Your task to perform on an android device: Open Maps and search for coffee Image 0: 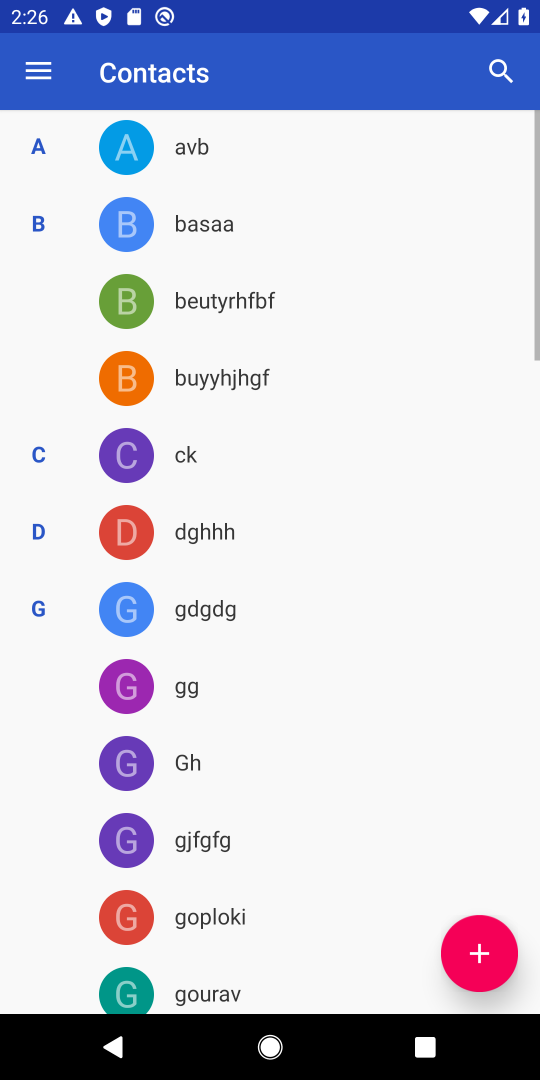
Step 0: press back button
Your task to perform on an android device: Open Maps and search for coffee Image 1: 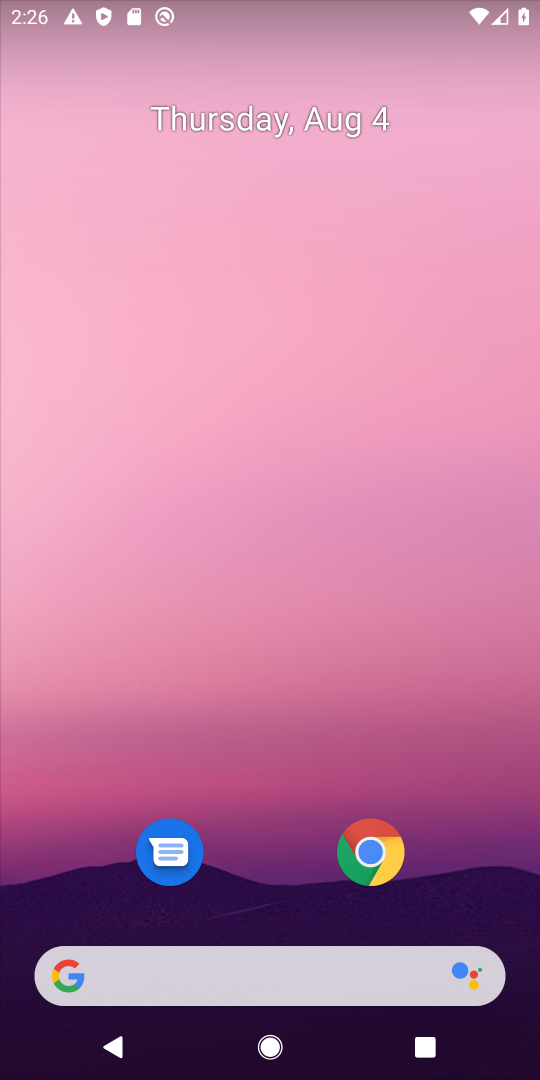
Step 1: drag from (278, 912) to (320, 146)
Your task to perform on an android device: Open Maps and search for coffee Image 2: 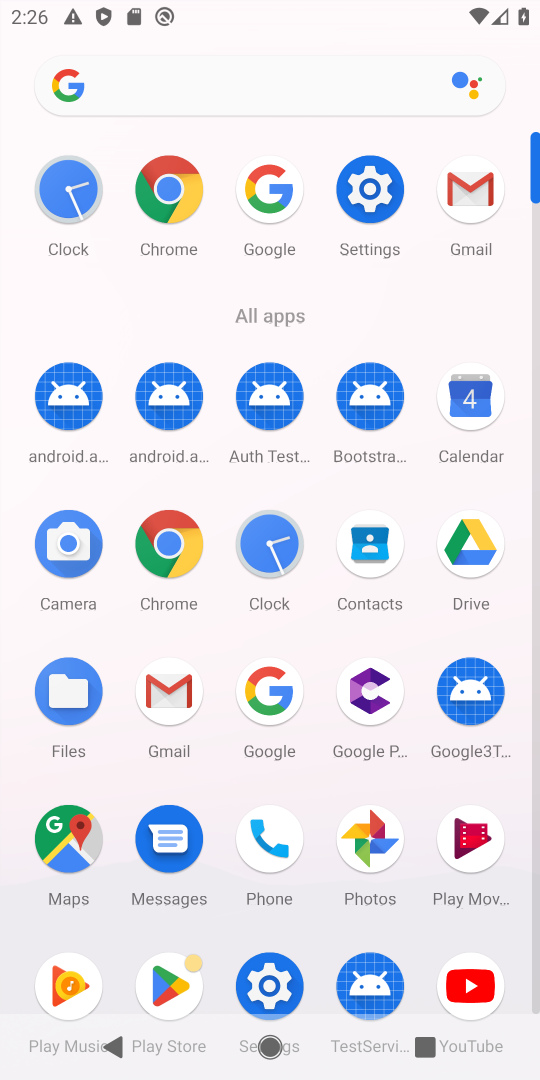
Step 2: click (76, 848)
Your task to perform on an android device: Open Maps and search for coffee Image 3: 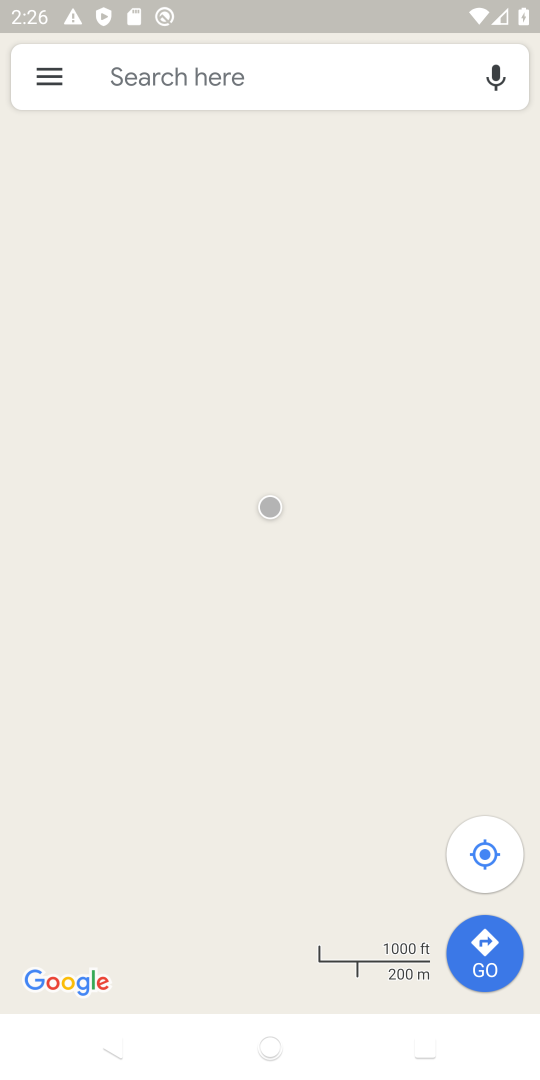
Step 3: click (165, 93)
Your task to perform on an android device: Open Maps and search for coffee Image 4: 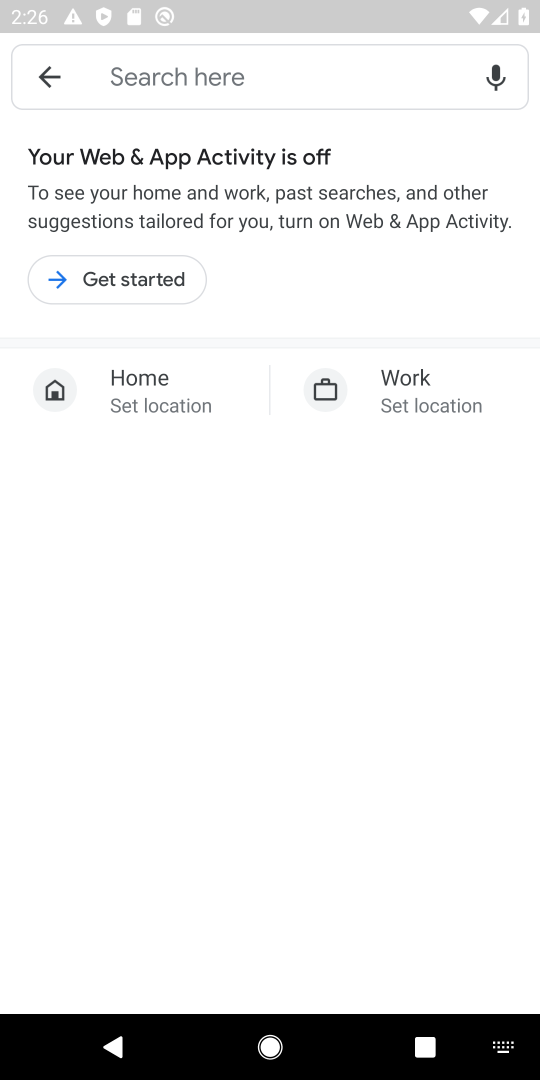
Step 4: type "coffee"
Your task to perform on an android device: Open Maps and search for coffee Image 5: 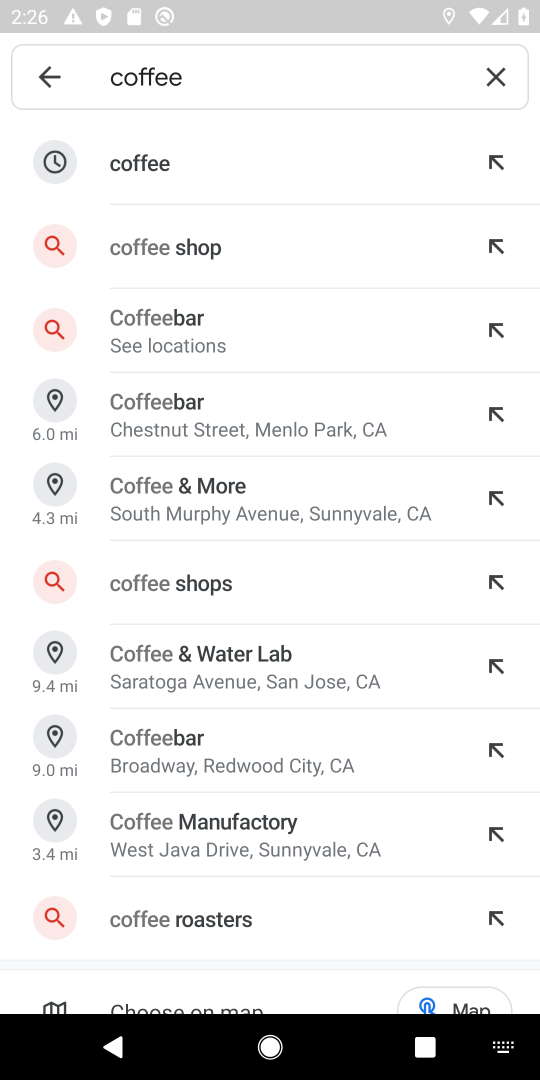
Step 5: click (224, 158)
Your task to perform on an android device: Open Maps and search for coffee Image 6: 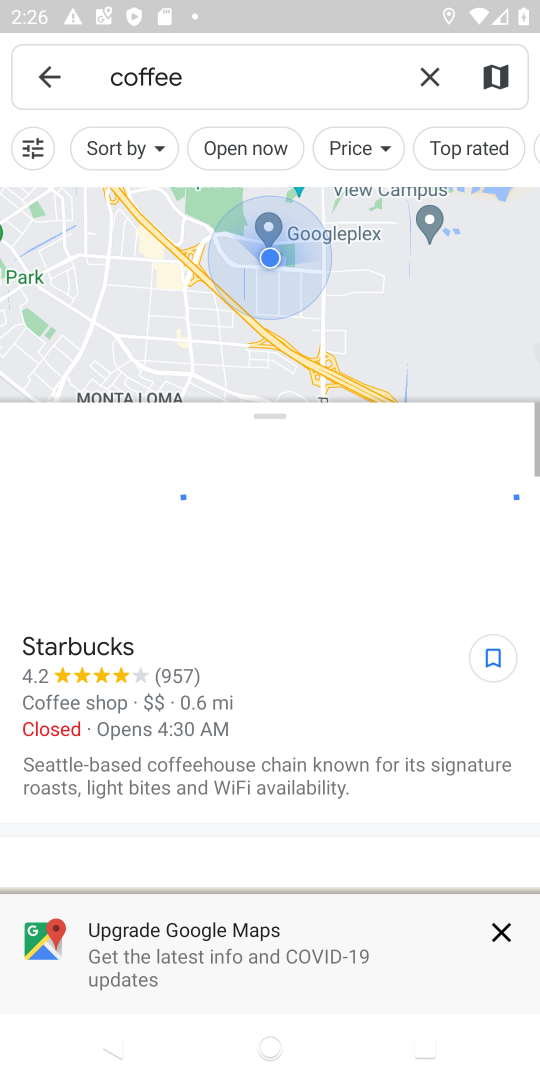
Step 6: task complete